Your task to perform on an android device: Go to ESPN.com Image 0: 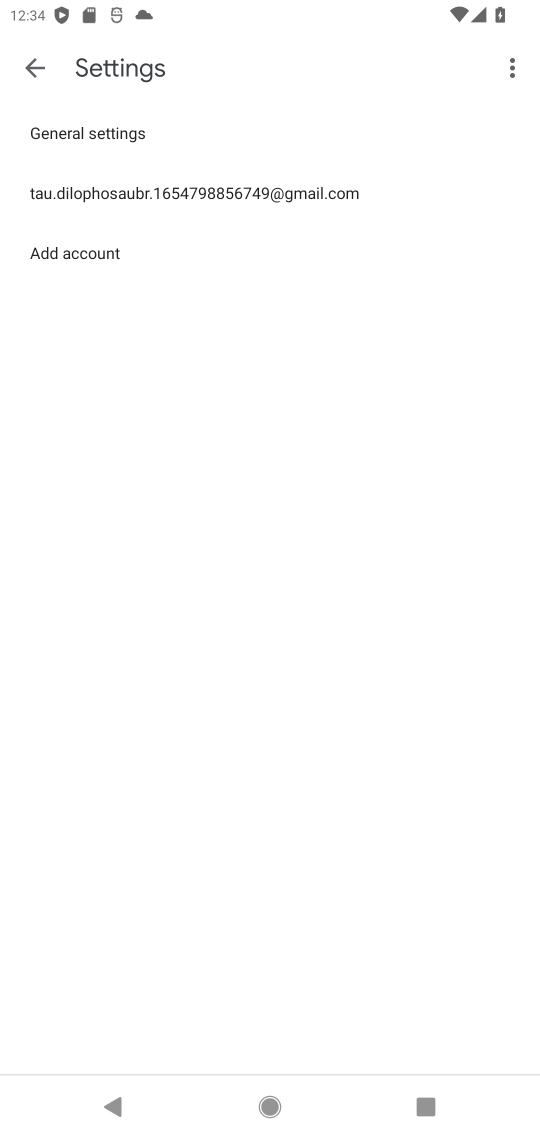
Step 0: press home button
Your task to perform on an android device: Go to ESPN.com Image 1: 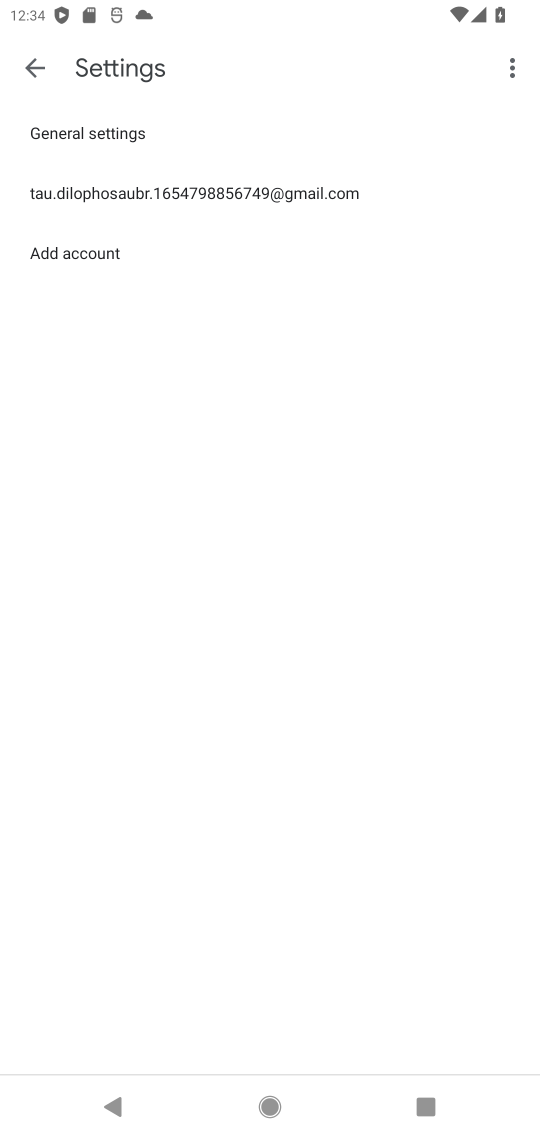
Step 1: press home button
Your task to perform on an android device: Go to ESPN.com Image 2: 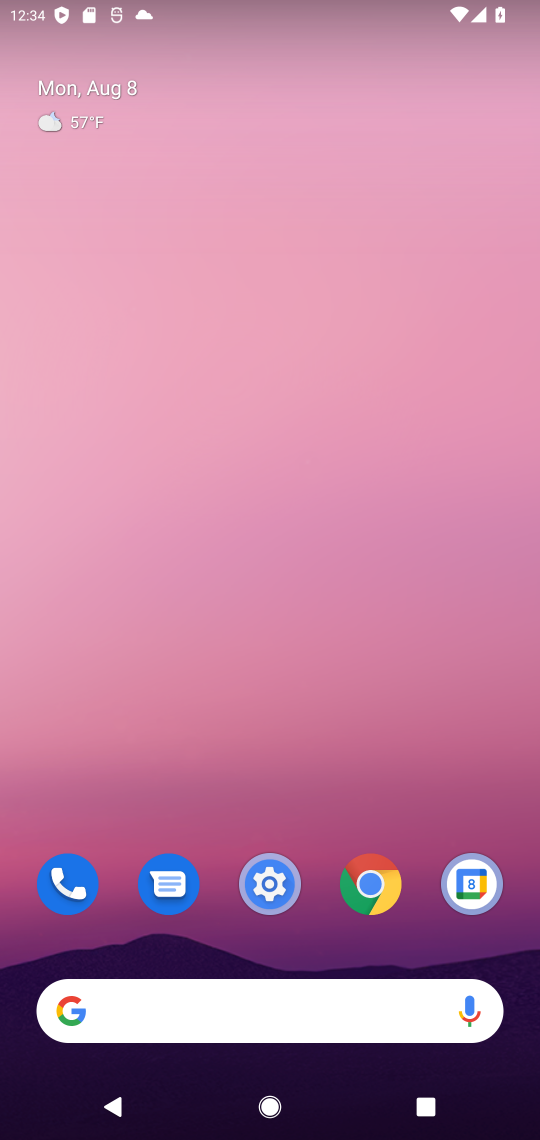
Step 2: click (296, 1017)
Your task to perform on an android device: Go to ESPN.com Image 3: 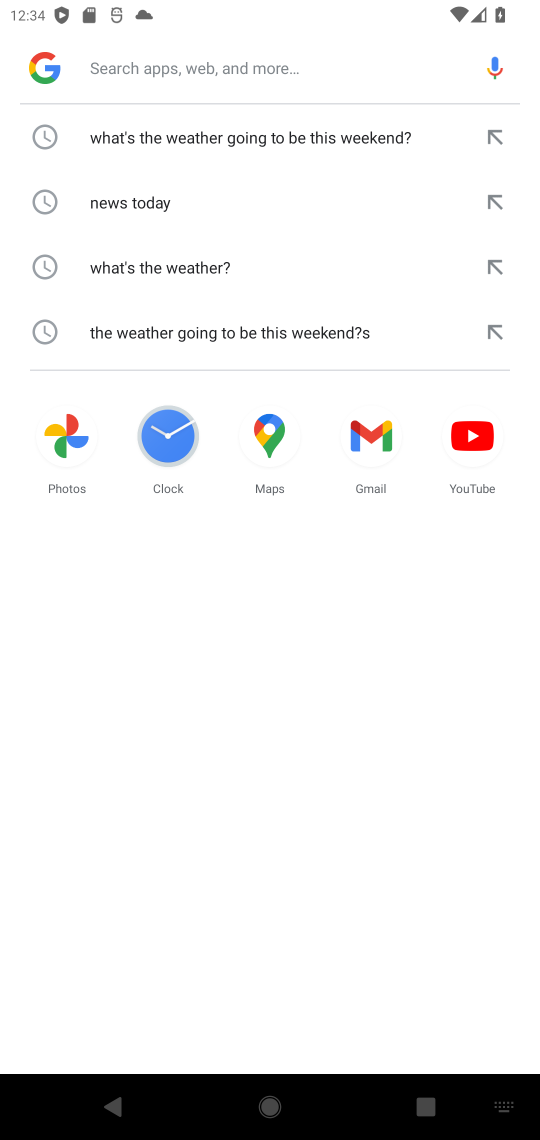
Step 3: type "espn.com"
Your task to perform on an android device: Go to ESPN.com Image 4: 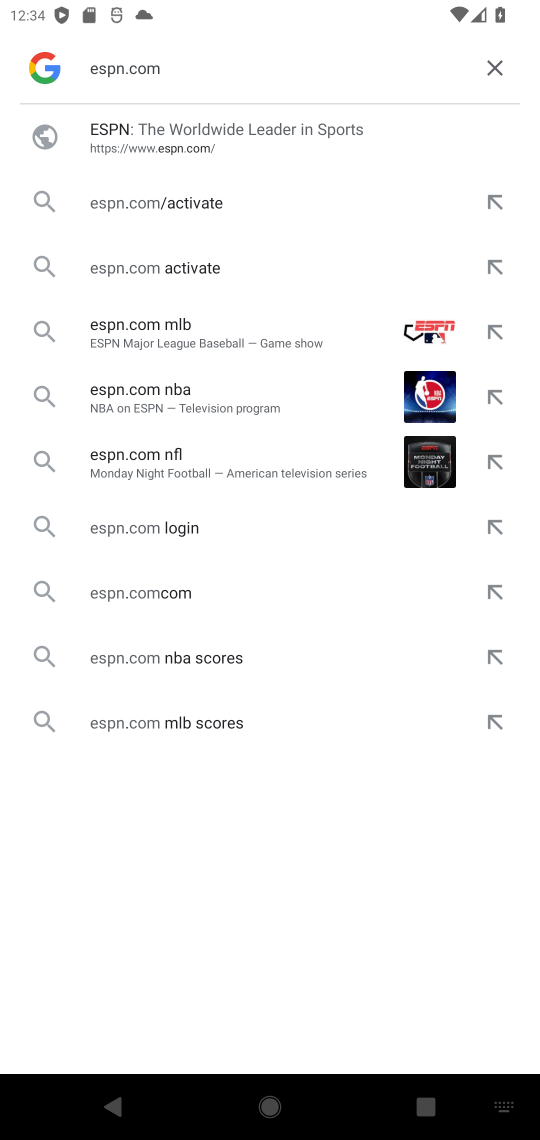
Step 4: click (294, 134)
Your task to perform on an android device: Go to ESPN.com Image 5: 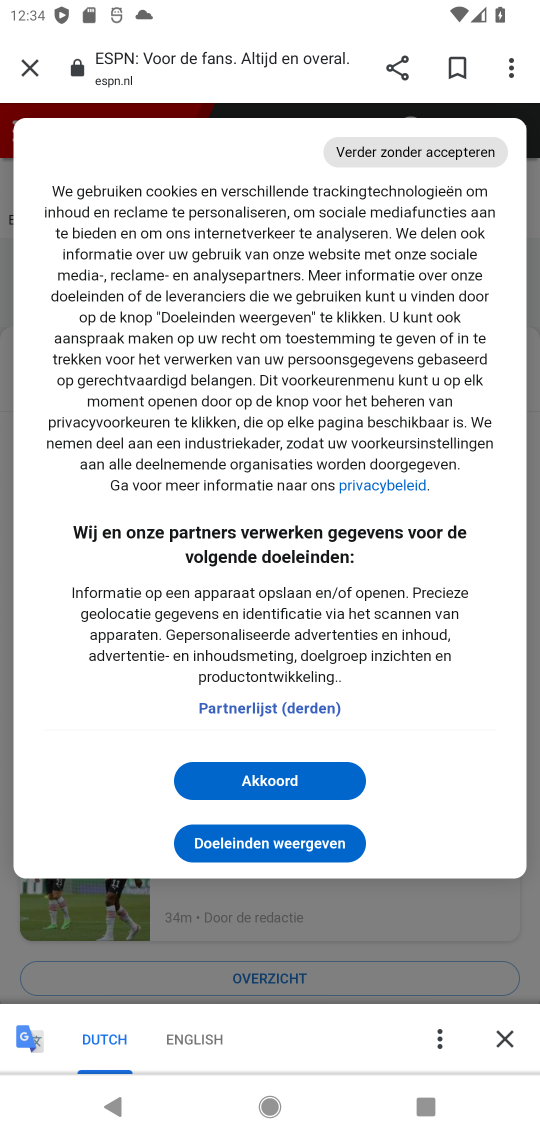
Step 5: task complete